Your task to perform on an android device: What is the news today? Image 0: 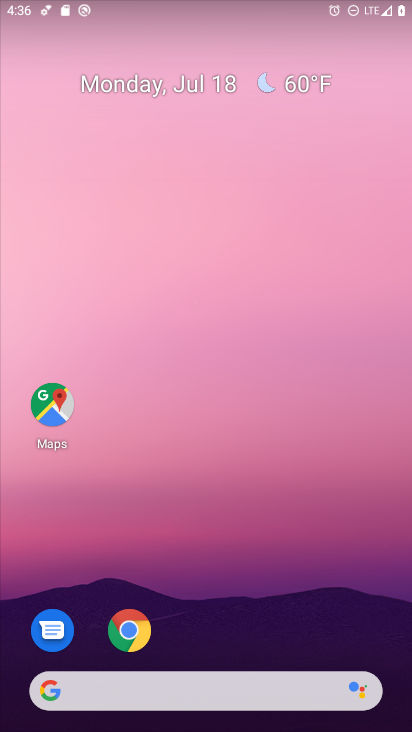
Step 0: drag from (11, 313) to (379, 277)
Your task to perform on an android device: What is the news today? Image 1: 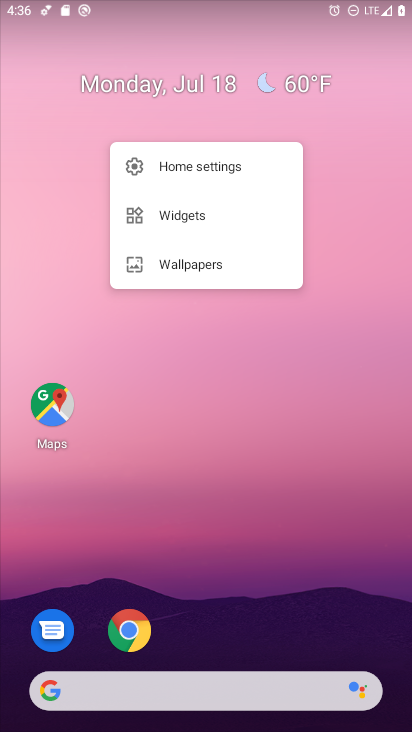
Step 1: click (290, 333)
Your task to perform on an android device: What is the news today? Image 2: 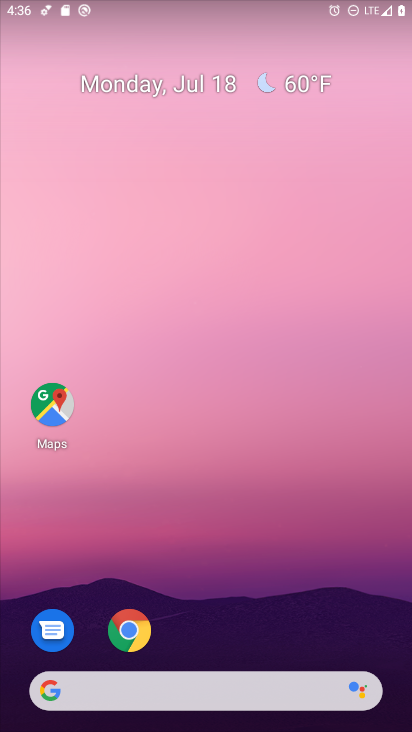
Step 2: task complete